Your task to perform on an android device: see sites visited before in the chrome app Image 0: 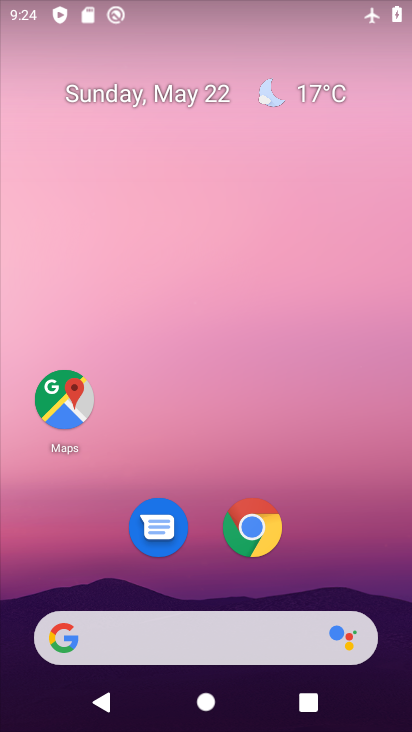
Step 0: click (243, 528)
Your task to perform on an android device: see sites visited before in the chrome app Image 1: 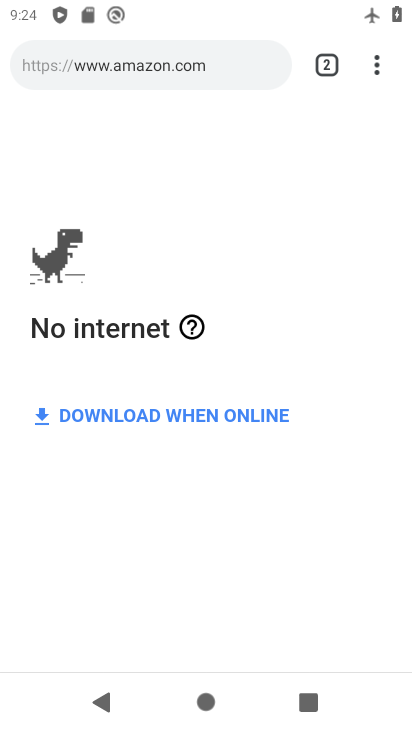
Step 1: click (376, 64)
Your task to perform on an android device: see sites visited before in the chrome app Image 2: 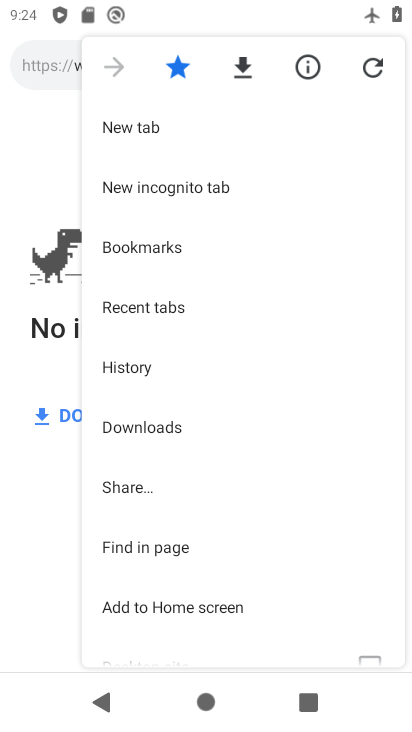
Step 2: click (128, 360)
Your task to perform on an android device: see sites visited before in the chrome app Image 3: 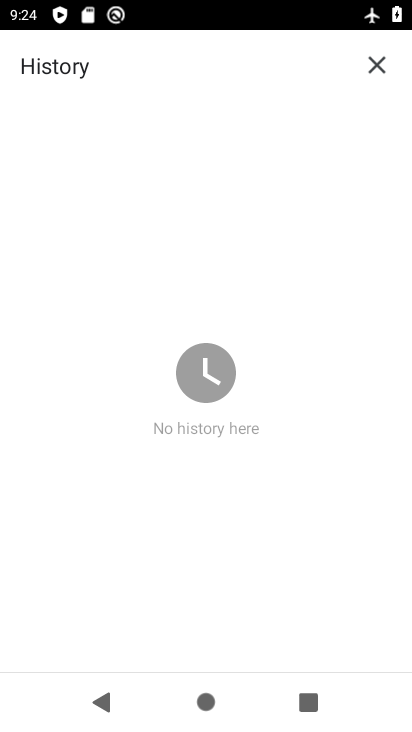
Step 3: task complete